Your task to perform on an android device: toggle notifications settings in the gmail app Image 0: 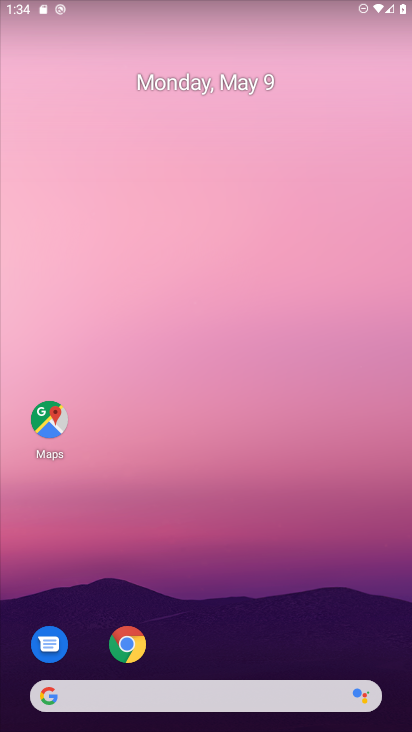
Step 0: drag from (250, 631) to (289, 189)
Your task to perform on an android device: toggle notifications settings in the gmail app Image 1: 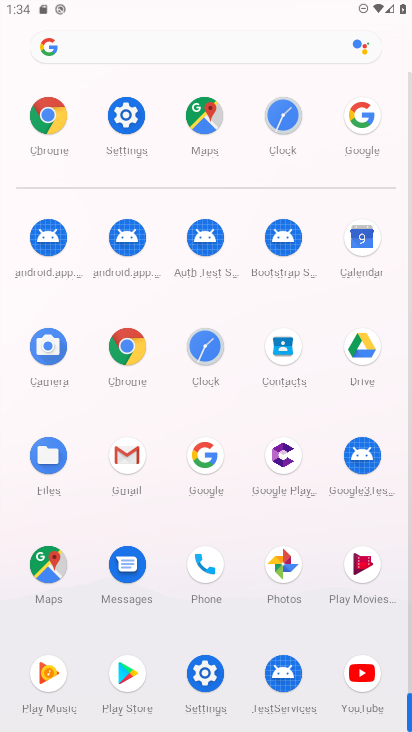
Step 1: click (118, 131)
Your task to perform on an android device: toggle notifications settings in the gmail app Image 2: 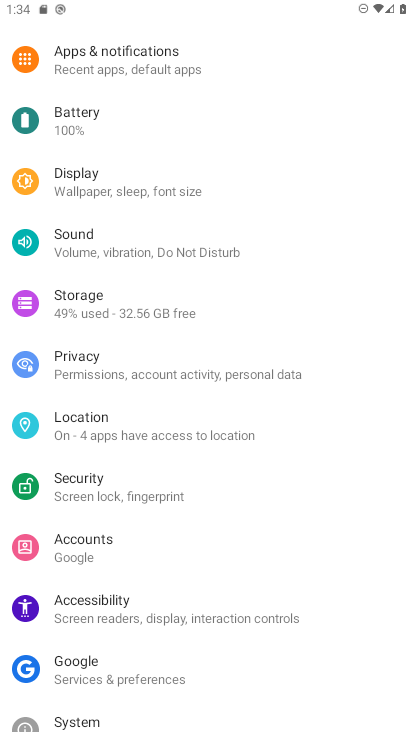
Step 2: click (113, 64)
Your task to perform on an android device: toggle notifications settings in the gmail app Image 3: 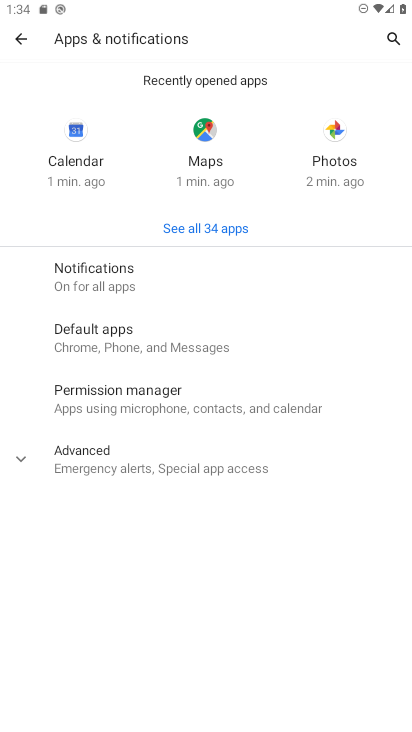
Step 3: click (90, 283)
Your task to perform on an android device: toggle notifications settings in the gmail app Image 4: 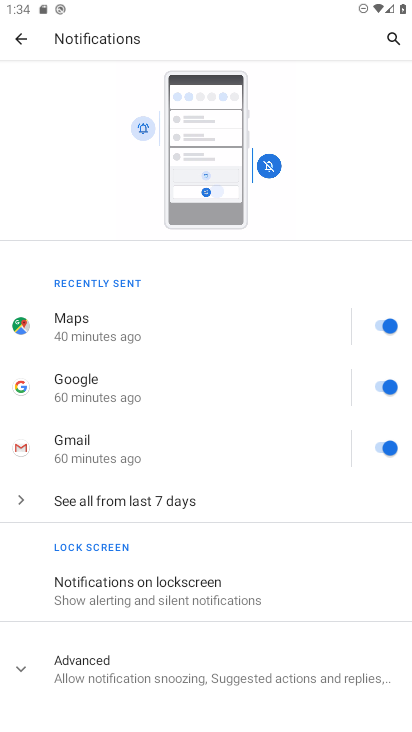
Step 4: drag from (220, 622) to (228, 250)
Your task to perform on an android device: toggle notifications settings in the gmail app Image 5: 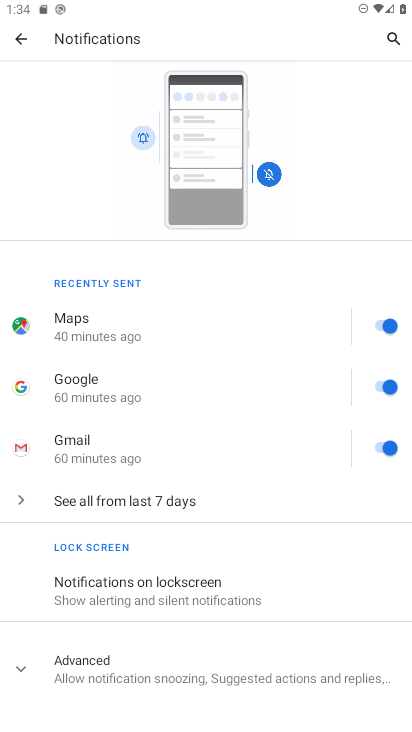
Step 5: drag from (134, 656) to (162, 338)
Your task to perform on an android device: toggle notifications settings in the gmail app Image 6: 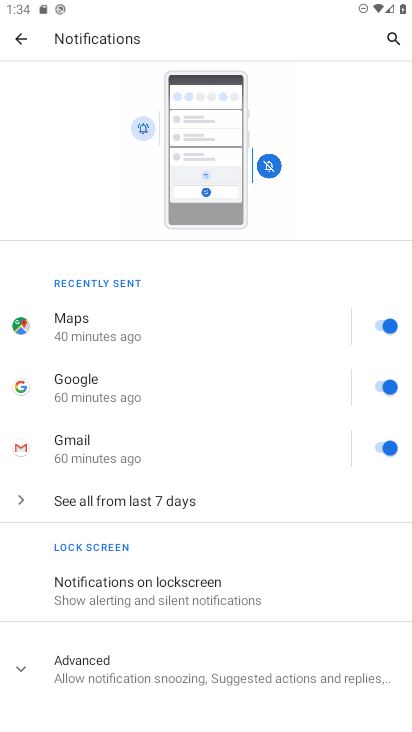
Step 6: click (180, 590)
Your task to perform on an android device: toggle notifications settings in the gmail app Image 7: 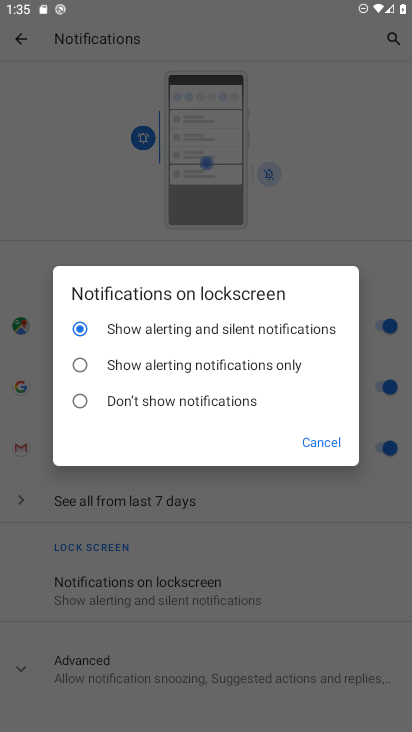
Step 7: click (75, 409)
Your task to perform on an android device: toggle notifications settings in the gmail app Image 8: 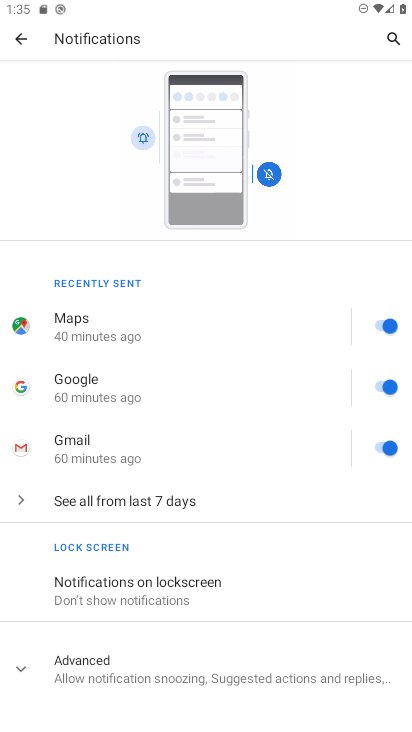
Step 8: task complete